Your task to perform on an android device: Open battery settings Image 0: 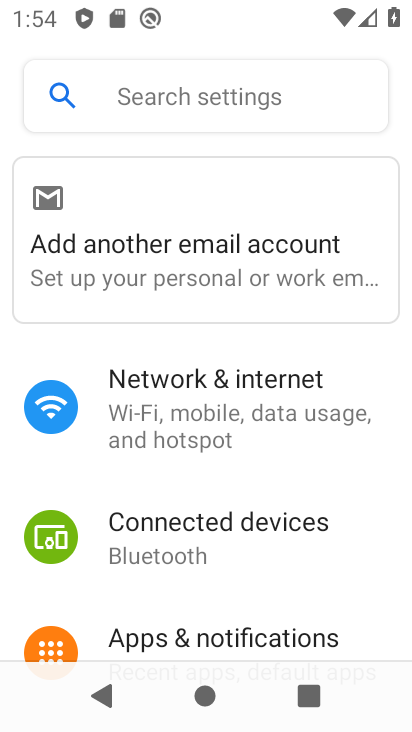
Step 0: drag from (356, 579) to (371, 449)
Your task to perform on an android device: Open battery settings Image 1: 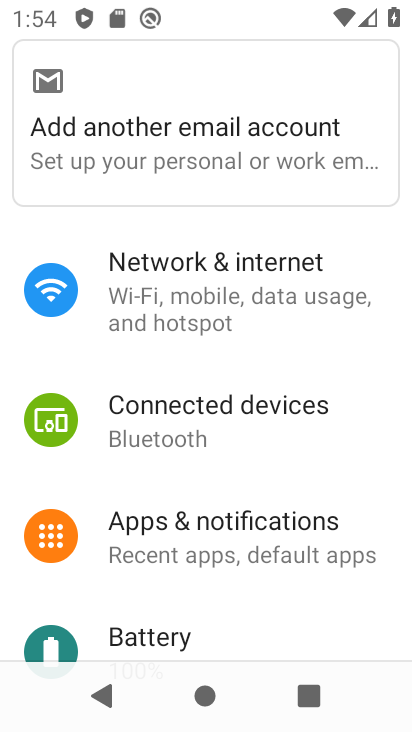
Step 1: drag from (361, 612) to (365, 516)
Your task to perform on an android device: Open battery settings Image 2: 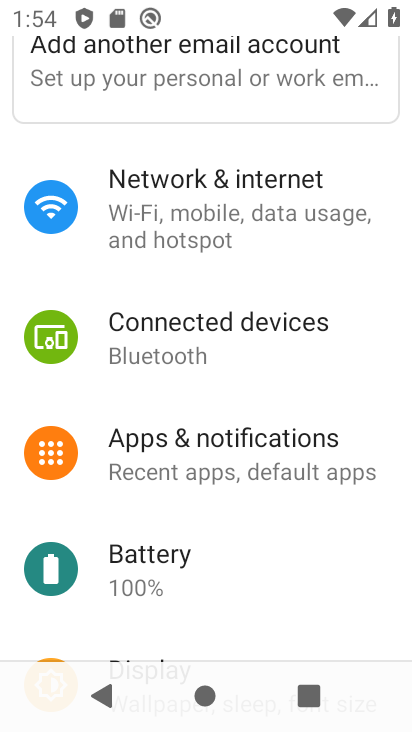
Step 2: drag from (368, 597) to (371, 482)
Your task to perform on an android device: Open battery settings Image 3: 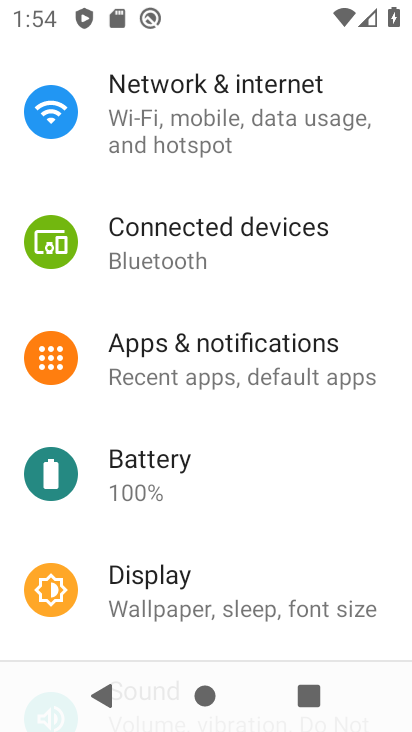
Step 3: drag from (381, 576) to (381, 460)
Your task to perform on an android device: Open battery settings Image 4: 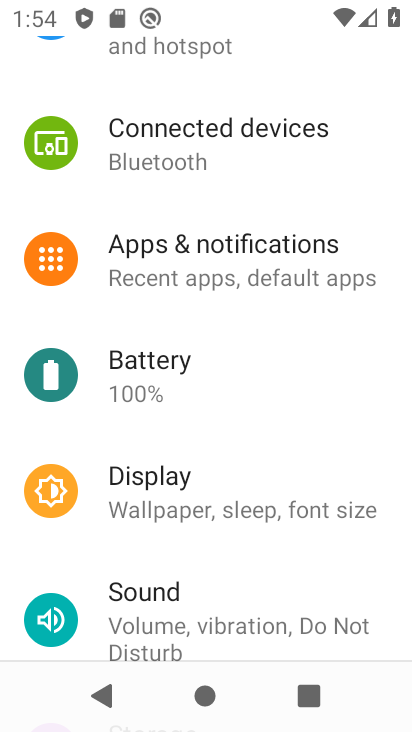
Step 4: drag from (383, 576) to (380, 449)
Your task to perform on an android device: Open battery settings Image 5: 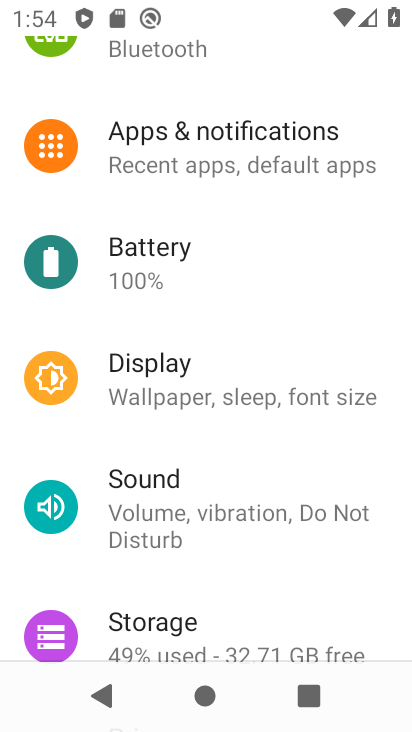
Step 5: drag from (359, 326) to (367, 429)
Your task to perform on an android device: Open battery settings Image 6: 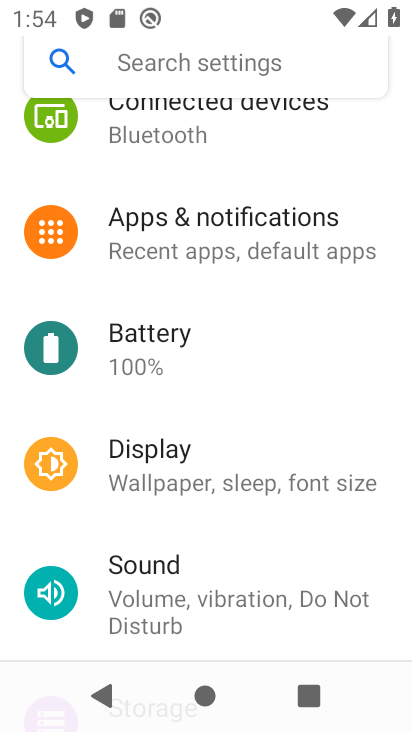
Step 6: drag from (378, 312) to (382, 522)
Your task to perform on an android device: Open battery settings Image 7: 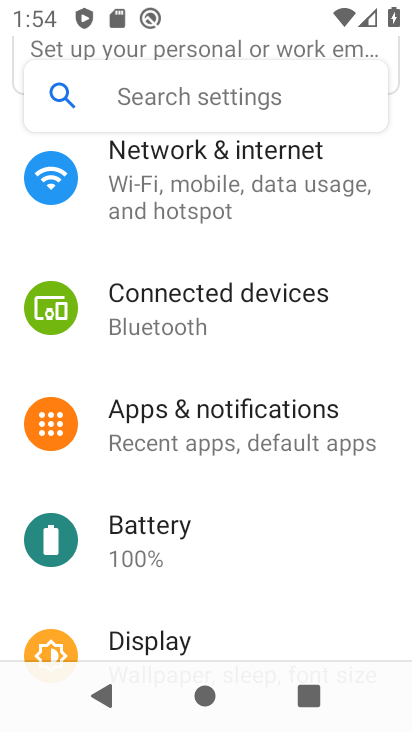
Step 7: click (204, 536)
Your task to perform on an android device: Open battery settings Image 8: 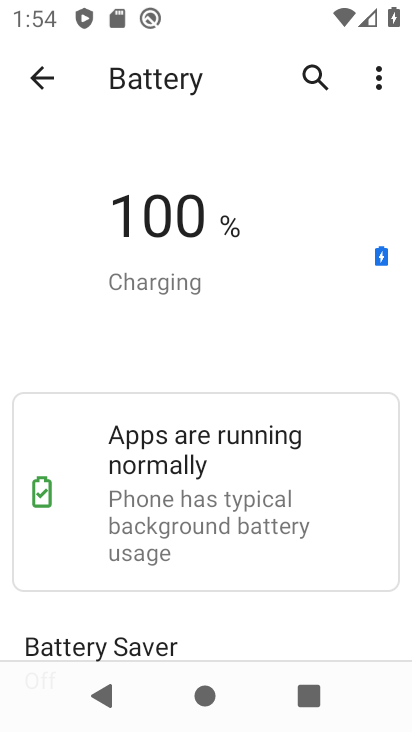
Step 8: task complete